Your task to perform on an android device: Search for "alienware area 51" on ebay.com, select the first entry, add it to the cart, then select checkout. Image 0: 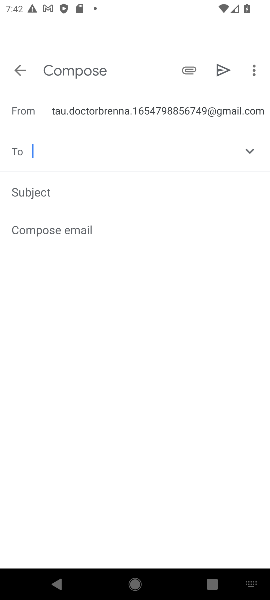
Step 0: press home button
Your task to perform on an android device: Search for "alienware area 51" on ebay.com, select the first entry, add it to the cart, then select checkout. Image 1: 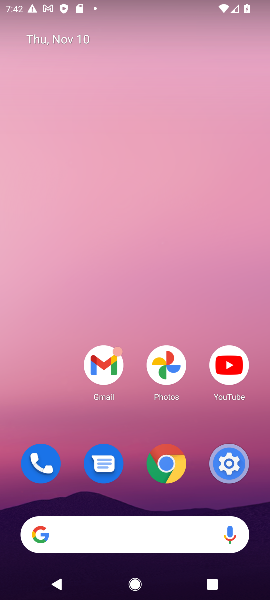
Step 1: click (174, 470)
Your task to perform on an android device: Search for "alienware area 51" on ebay.com, select the first entry, add it to the cart, then select checkout. Image 2: 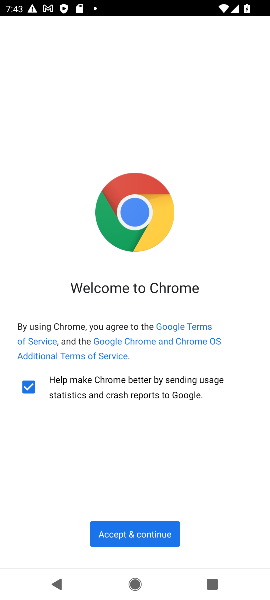
Step 2: click (135, 535)
Your task to perform on an android device: Search for "alienware area 51" on ebay.com, select the first entry, add it to the cart, then select checkout. Image 3: 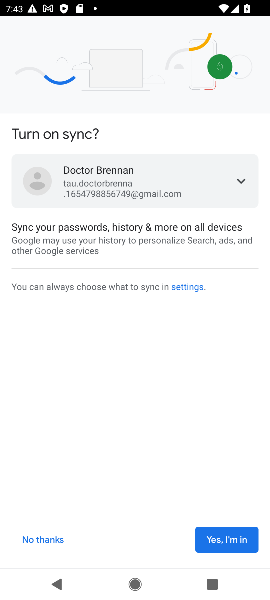
Step 3: click (210, 542)
Your task to perform on an android device: Search for "alienware area 51" on ebay.com, select the first entry, add it to the cart, then select checkout. Image 4: 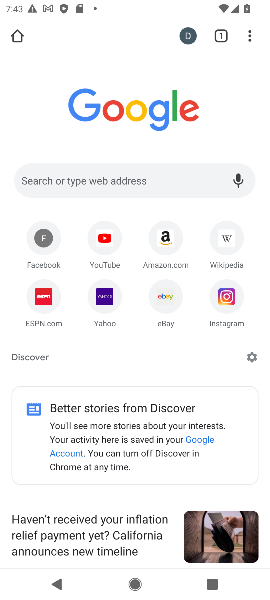
Step 4: click (117, 178)
Your task to perform on an android device: Search for "alienware area 51" on ebay.com, select the first entry, add it to the cart, then select checkout. Image 5: 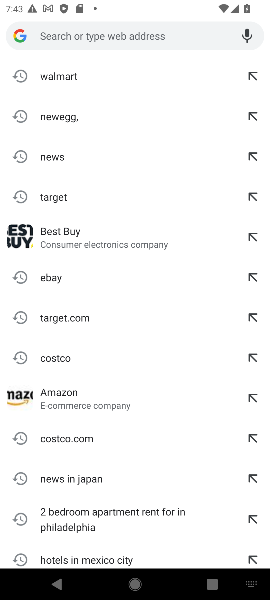
Step 5: click (51, 275)
Your task to perform on an android device: Search for "alienware area 51" on ebay.com, select the first entry, add it to the cart, then select checkout. Image 6: 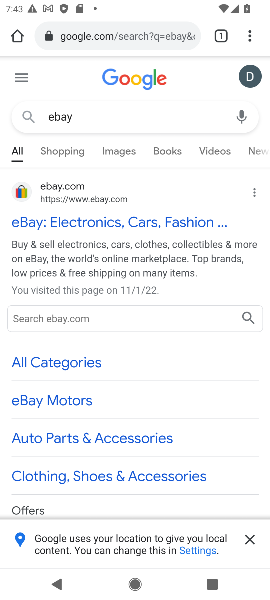
Step 6: click (85, 219)
Your task to perform on an android device: Search for "alienware area 51" on ebay.com, select the first entry, add it to the cart, then select checkout. Image 7: 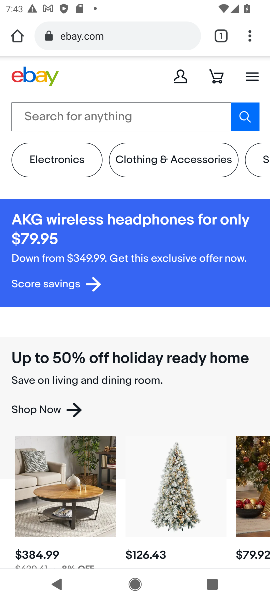
Step 7: click (101, 115)
Your task to perform on an android device: Search for "alienware area 51" on ebay.com, select the first entry, add it to the cart, then select checkout. Image 8: 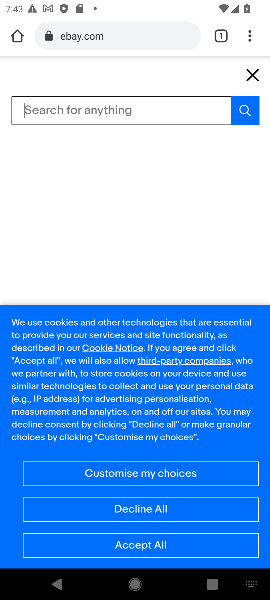
Step 8: click (75, 109)
Your task to perform on an android device: Search for "alienware area 51" on ebay.com, select the first entry, add it to the cart, then select checkout. Image 9: 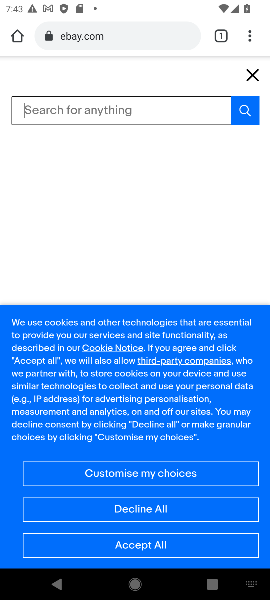
Step 9: type "alienware area 51"
Your task to perform on an android device: Search for "alienware area 51" on ebay.com, select the first entry, add it to the cart, then select checkout. Image 10: 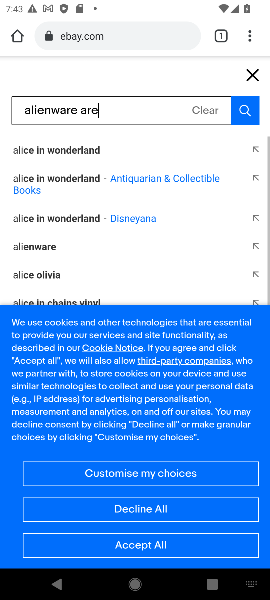
Step 10: press enter
Your task to perform on an android device: Search for "alienware area 51" on ebay.com, select the first entry, add it to the cart, then select checkout. Image 11: 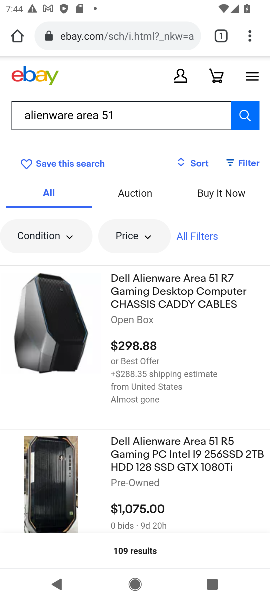
Step 11: click (151, 311)
Your task to perform on an android device: Search for "alienware area 51" on ebay.com, select the first entry, add it to the cart, then select checkout. Image 12: 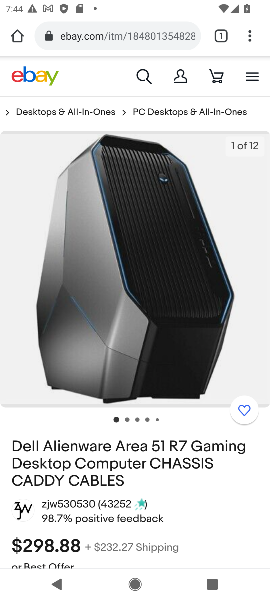
Step 12: drag from (188, 516) to (263, 138)
Your task to perform on an android device: Search for "alienware area 51" on ebay.com, select the first entry, add it to the cart, then select checkout. Image 13: 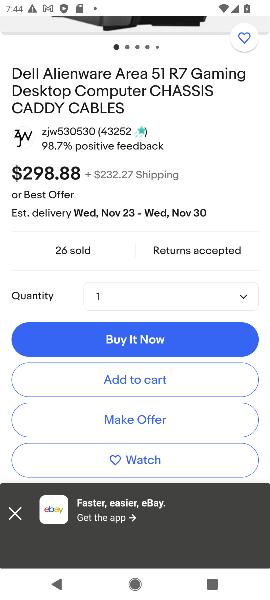
Step 13: click (137, 375)
Your task to perform on an android device: Search for "alienware area 51" on ebay.com, select the first entry, add it to the cart, then select checkout. Image 14: 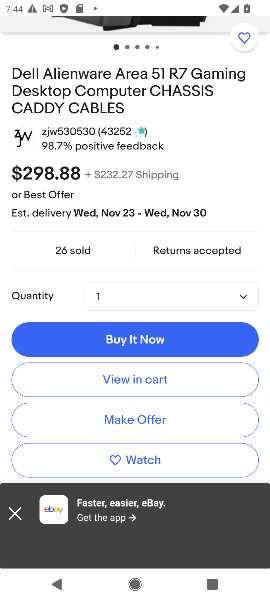
Step 14: click (137, 377)
Your task to perform on an android device: Search for "alienware area 51" on ebay.com, select the first entry, add it to the cart, then select checkout. Image 15: 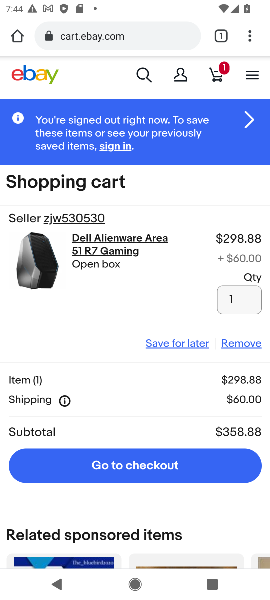
Step 15: click (166, 467)
Your task to perform on an android device: Search for "alienware area 51" on ebay.com, select the first entry, add it to the cart, then select checkout. Image 16: 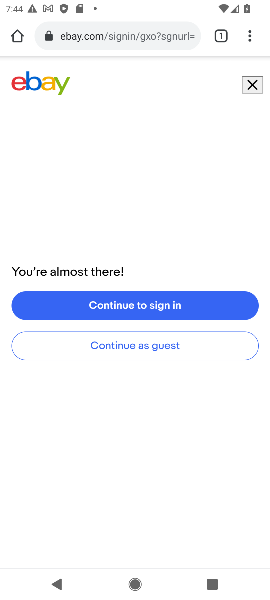
Step 16: task complete